Your task to perform on an android device: visit the assistant section in the google photos Image 0: 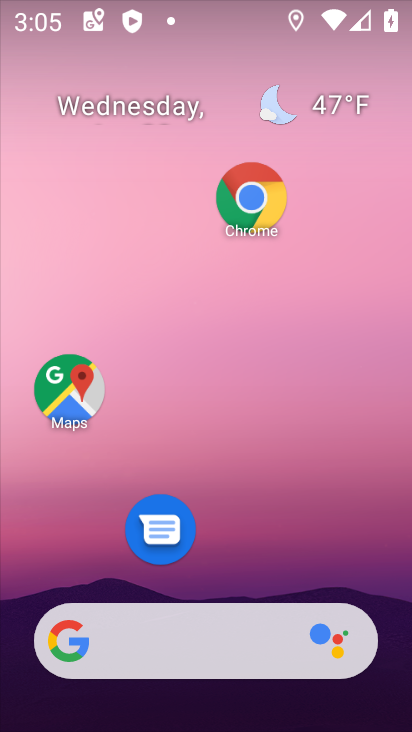
Step 0: click (253, 188)
Your task to perform on an android device: visit the assistant section in the google photos Image 1: 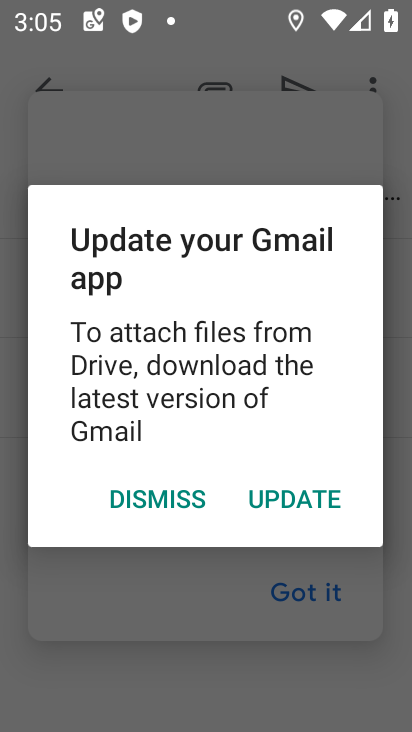
Step 1: press home button
Your task to perform on an android device: visit the assistant section in the google photos Image 2: 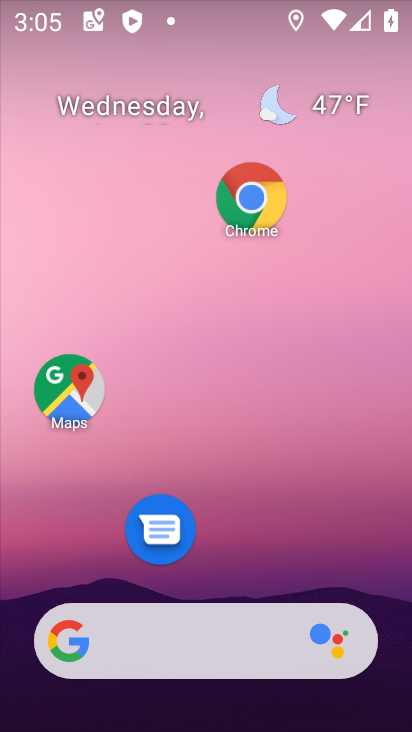
Step 2: drag from (257, 578) to (263, 51)
Your task to perform on an android device: visit the assistant section in the google photos Image 3: 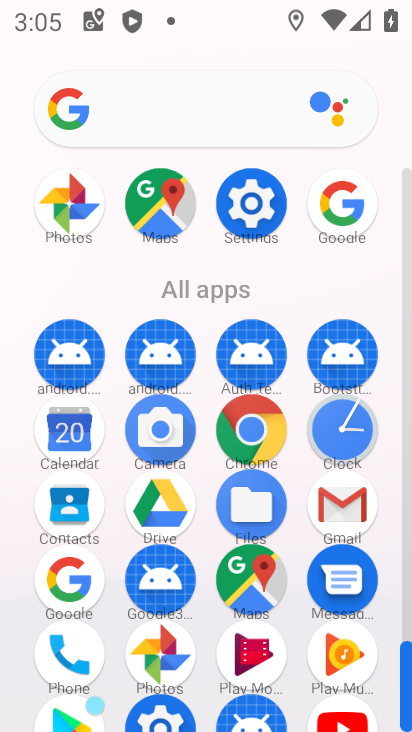
Step 3: click (167, 663)
Your task to perform on an android device: visit the assistant section in the google photos Image 4: 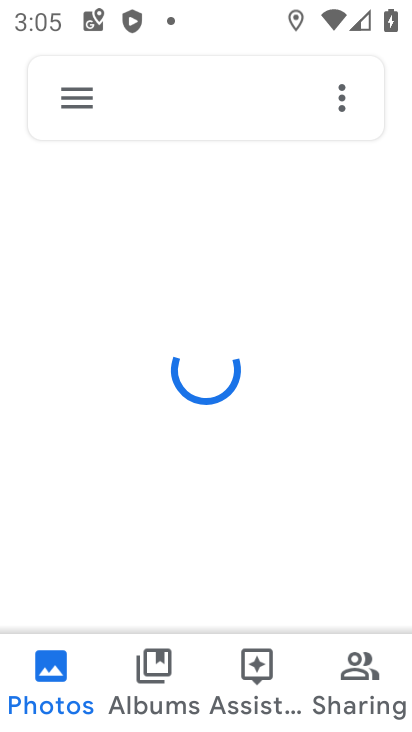
Step 4: click (247, 692)
Your task to perform on an android device: visit the assistant section in the google photos Image 5: 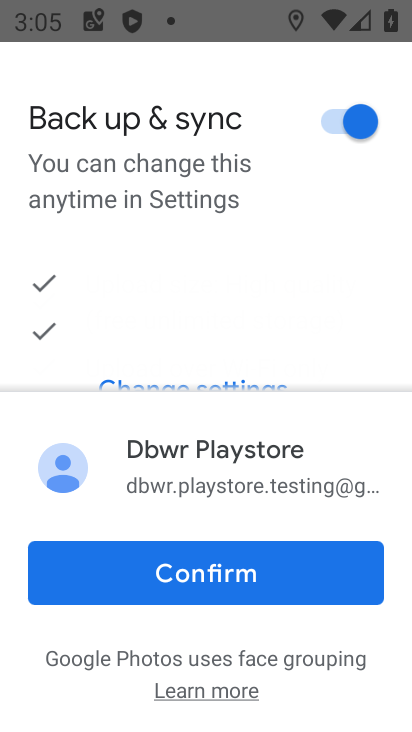
Step 5: click (255, 570)
Your task to perform on an android device: visit the assistant section in the google photos Image 6: 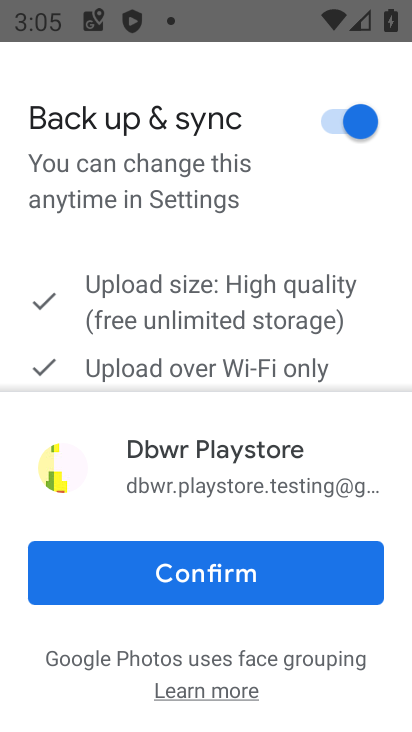
Step 6: click (239, 587)
Your task to perform on an android device: visit the assistant section in the google photos Image 7: 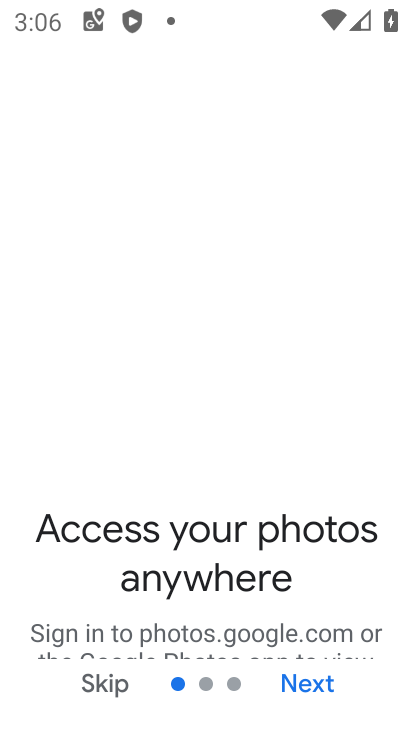
Step 7: click (106, 684)
Your task to perform on an android device: visit the assistant section in the google photos Image 8: 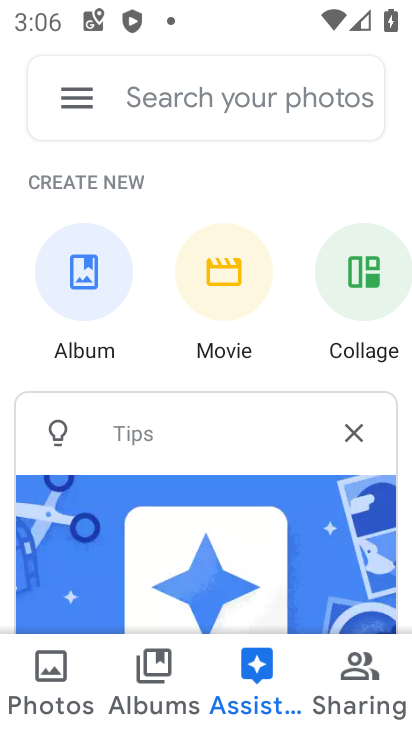
Step 8: task complete